Your task to perform on an android device: Open Chrome and go to the settings page Image 0: 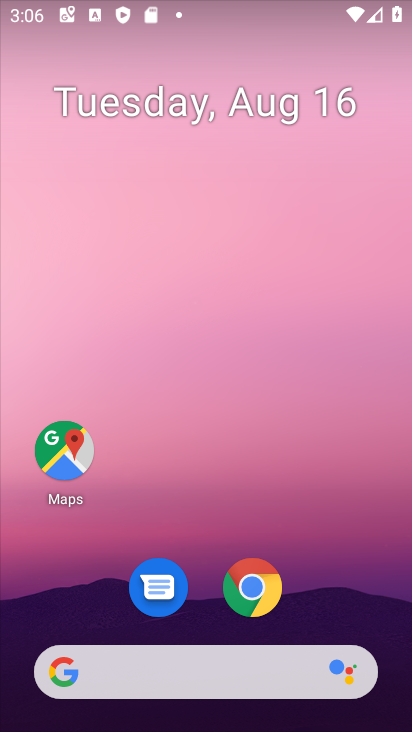
Step 0: click (262, 582)
Your task to perform on an android device: Open Chrome and go to the settings page Image 1: 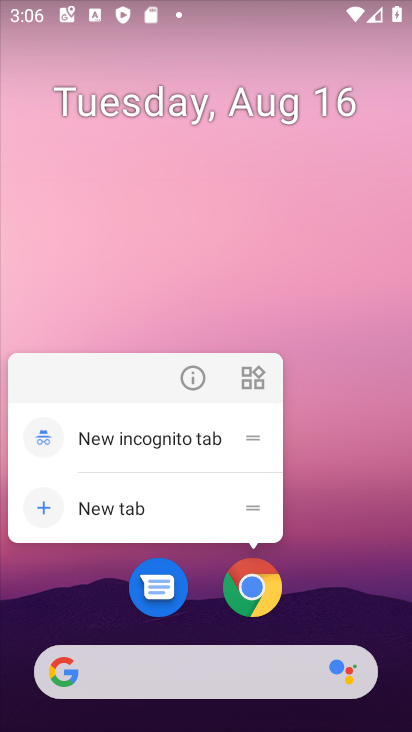
Step 1: click (253, 594)
Your task to perform on an android device: Open Chrome and go to the settings page Image 2: 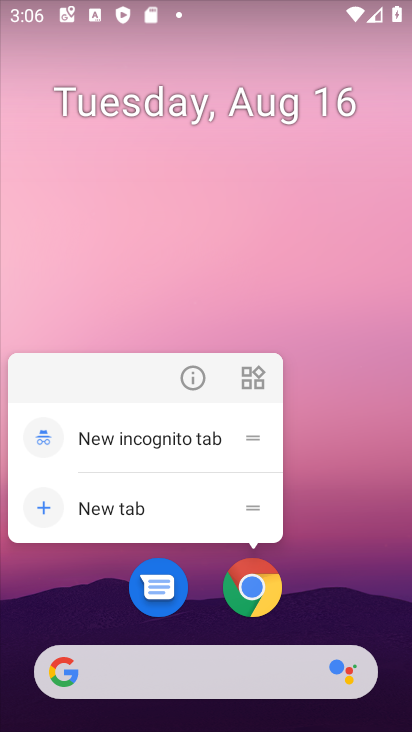
Step 2: click (253, 594)
Your task to perform on an android device: Open Chrome and go to the settings page Image 3: 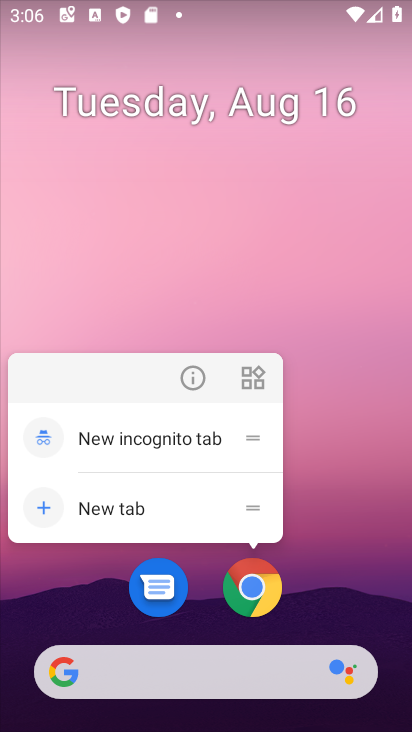
Step 3: click (260, 585)
Your task to perform on an android device: Open Chrome and go to the settings page Image 4: 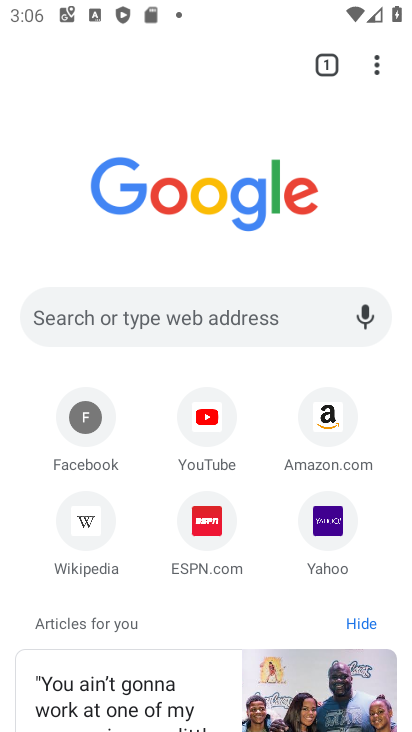
Step 4: task complete